Your task to perform on an android device: toggle improve location accuracy Image 0: 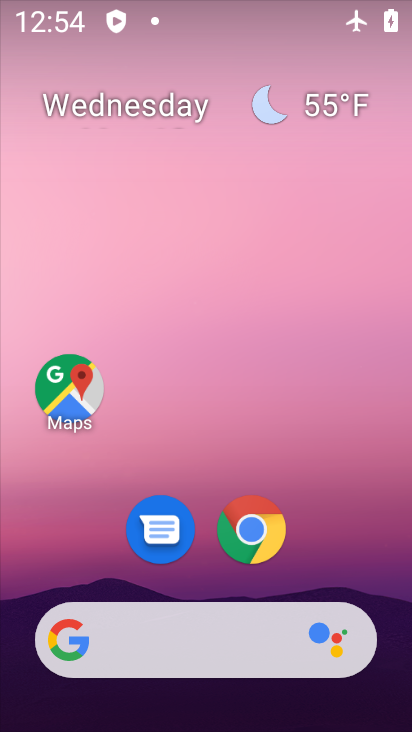
Step 0: drag from (227, 720) to (224, 111)
Your task to perform on an android device: toggle improve location accuracy Image 1: 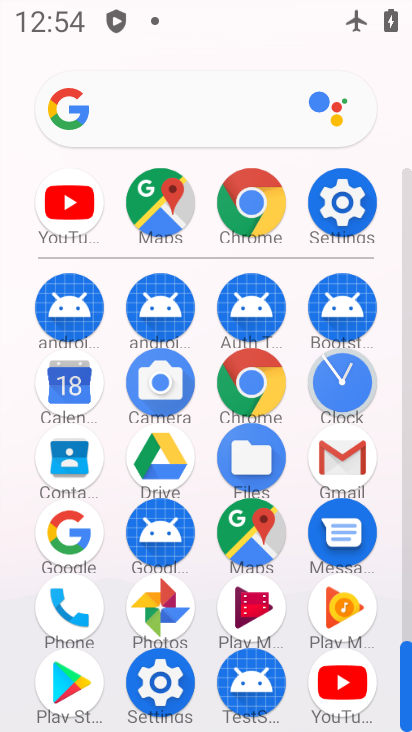
Step 1: click (337, 204)
Your task to perform on an android device: toggle improve location accuracy Image 2: 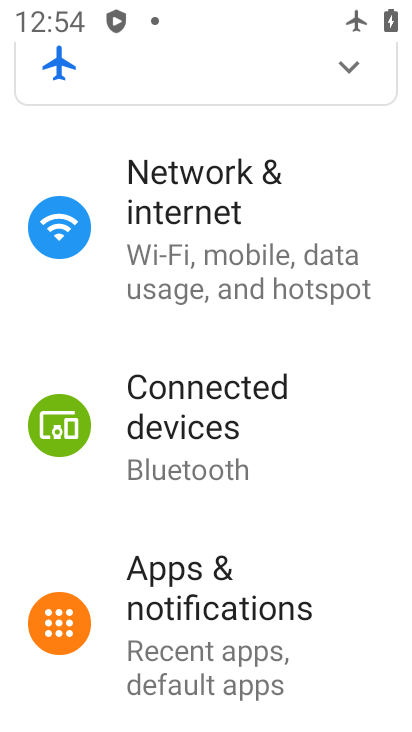
Step 2: drag from (191, 647) to (204, 262)
Your task to perform on an android device: toggle improve location accuracy Image 3: 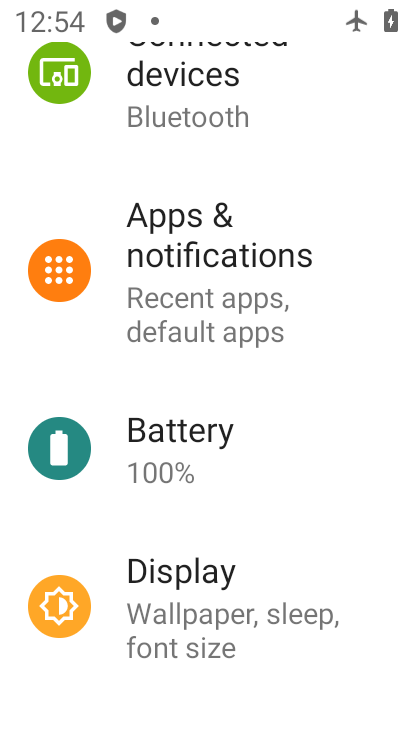
Step 3: drag from (189, 646) to (163, 210)
Your task to perform on an android device: toggle improve location accuracy Image 4: 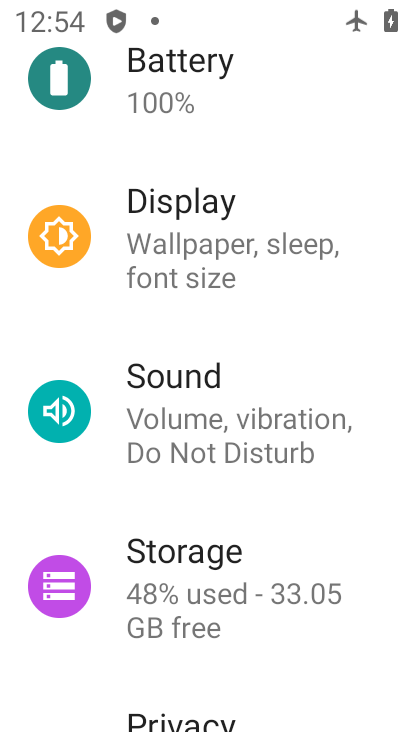
Step 4: drag from (177, 690) to (165, 250)
Your task to perform on an android device: toggle improve location accuracy Image 5: 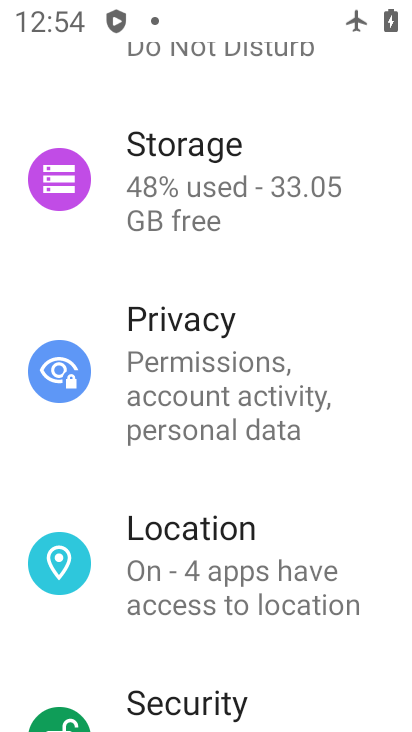
Step 5: click (220, 553)
Your task to perform on an android device: toggle improve location accuracy Image 6: 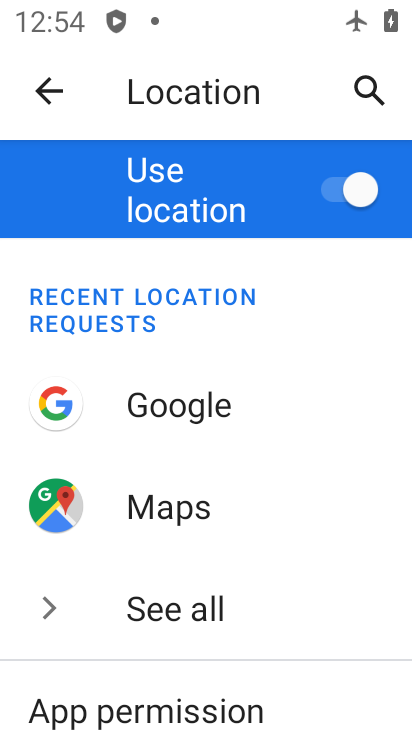
Step 6: drag from (182, 667) to (182, 297)
Your task to perform on an android device: toggle improve location accuracy Image 7: 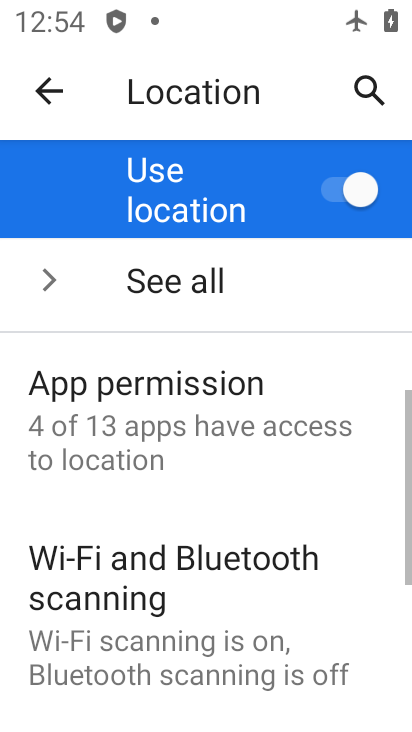
Step 7: drag from (190, 668) to (193, 323)
Your task to perform on an android device: toggle improve location accuracy Image 8: 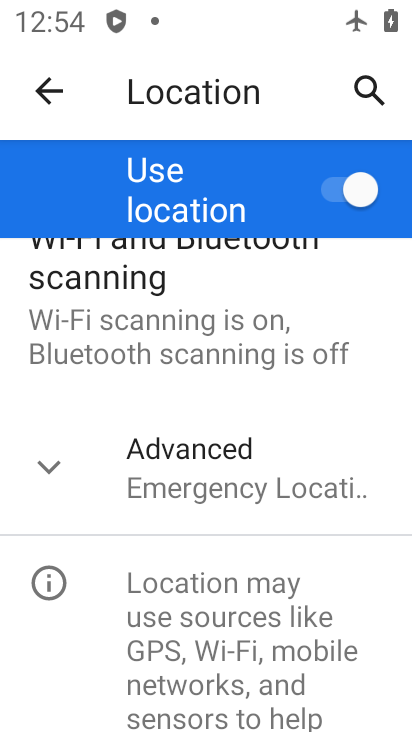
Step 8: click (176, 477)
Your task to perform on an android device: toggle improve location accuracy Image 9: 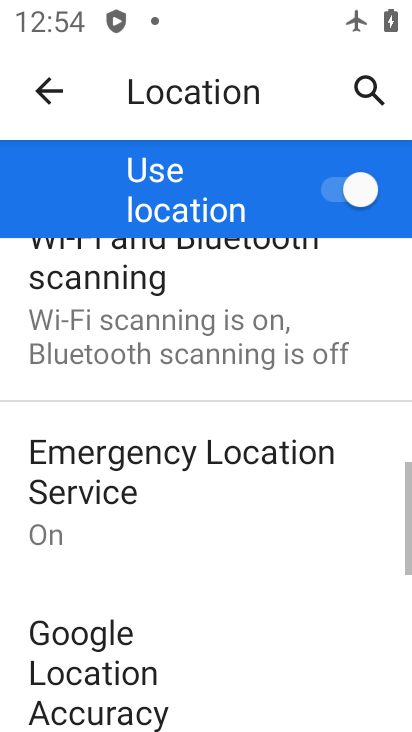
Step 9: drag from (200, 691) to (190, 375)
Your task to perform on an android device: toggle improve location accuracy Image 10: 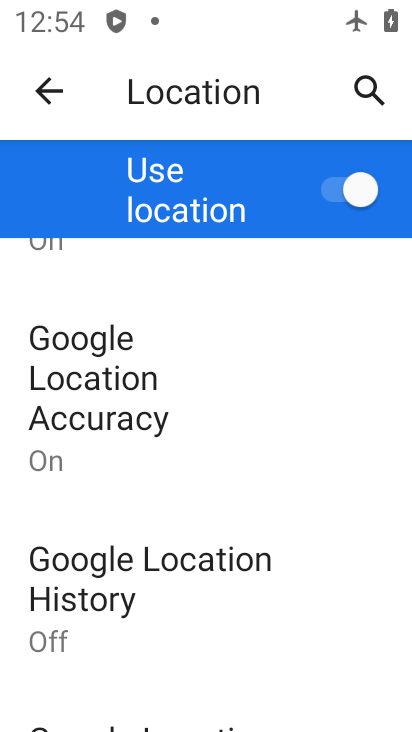
Step 10: click (90, 385)
Your task to perform on an android device: toggle improve location accuracy Image 11: 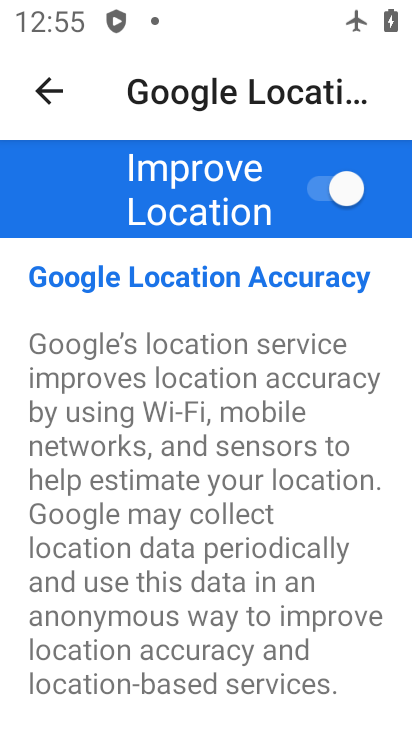
Step 11: click (327, 185)
Your task to perform on an android device: toggle improve location accuracy Image 12: 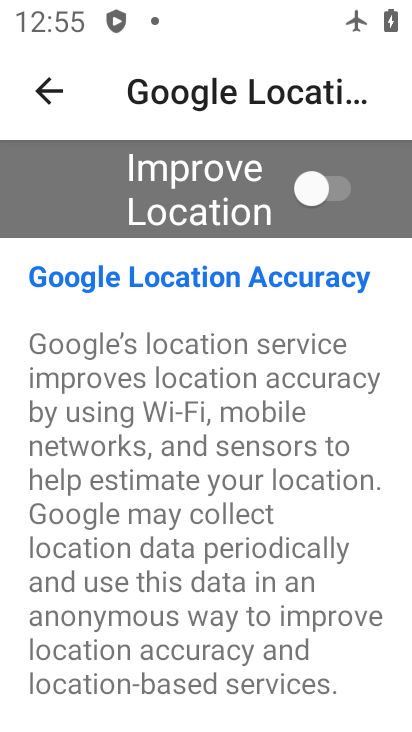
Step 12: task complete